Your task to perform on an android device: delete the emails in spam in the gmail app Image 0: 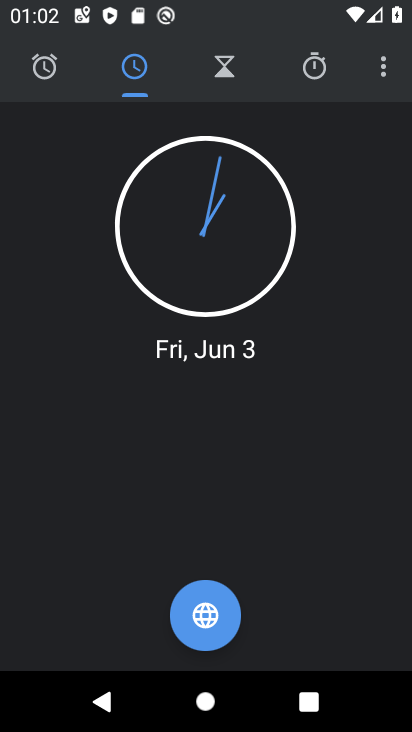
Step 0: press home button
Your task to perform on an android device: delete the emails in spam in the gmail app Image 1: 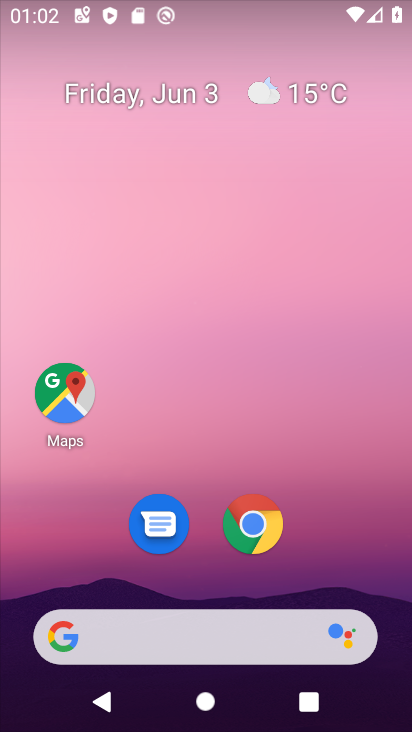
Step 1: drag from (201, 464) to (225, 1)
Your task to perform on an android device: delete the emails in spam in the gmail app Image 2: 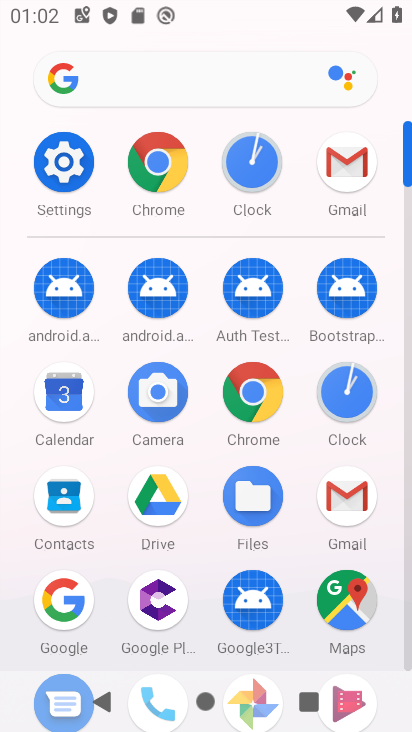
Step 2: click (357, 171)
Your task to perform on an android device: delete the emails in spam in the gmail app Image 3: 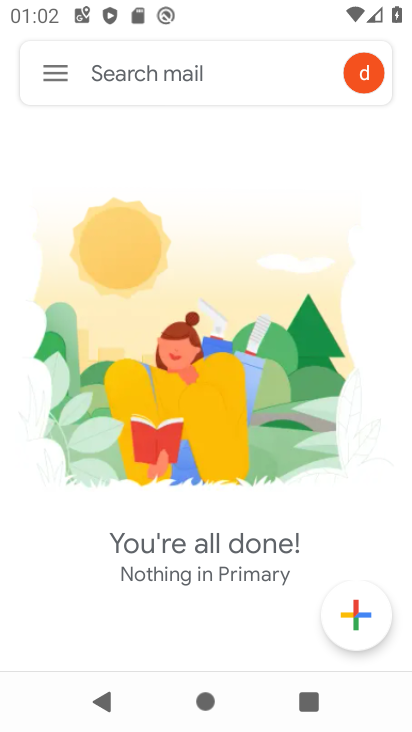
Step 3: click (46, 67)
Your task to perform on an android device: delete the emails in spam in the gmail app Image 4: 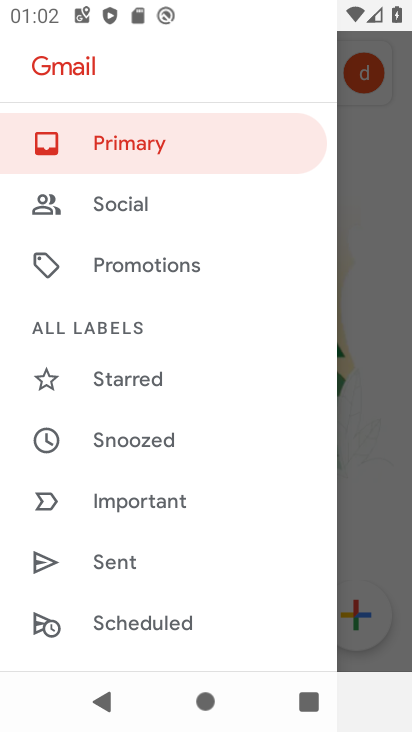
Step 4: drag from (186, 534) to (217, 155)
Your task to perform on an android device: delete the emails in spam in the gmail app Image 5: 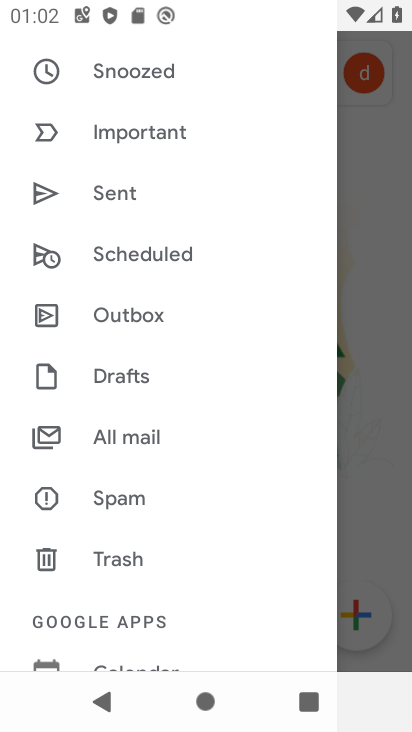
Step 5: click (148, 489)
Your task to perform on an android device: delete the emails in spam in the gmail app Image 6: 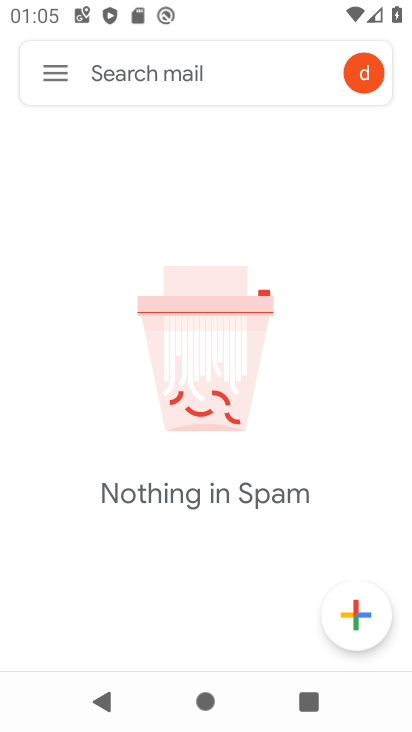
Step 6: task complete